Your task to perform on an android device: delete location history Image 0: 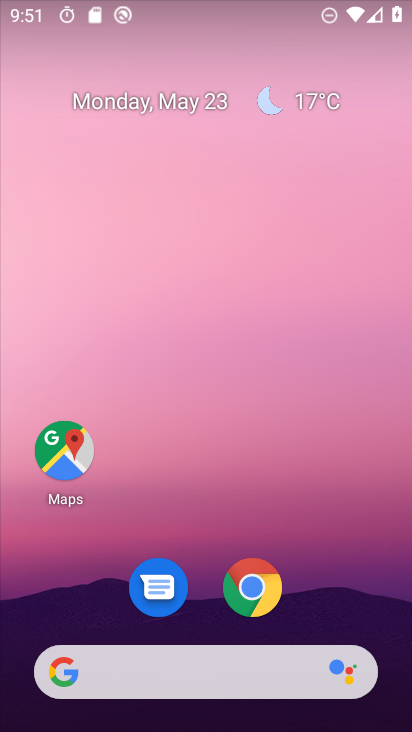
Step 0: click (70, 448)
Your task to perform on an android device: delete location history Image 1: 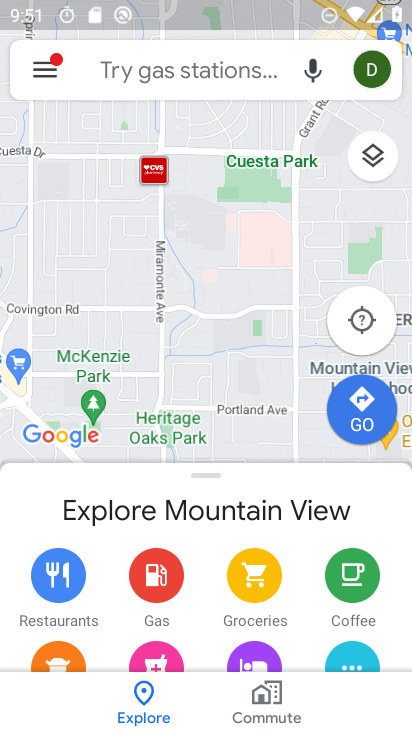
Step 1: click (64, 76)
Your task to perform on an android device: delete location history Image 2: 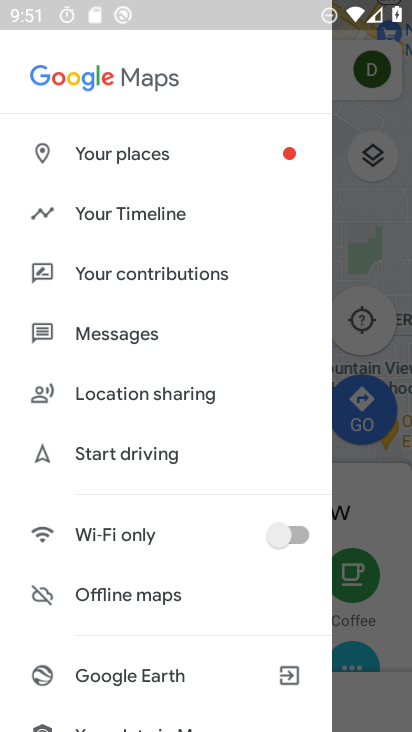
Step 2: click (147, 215)
Your task to perform on an android device: delete location history Image 3: 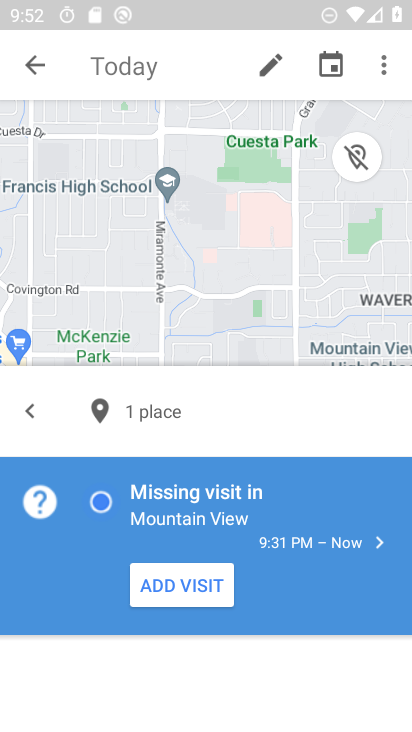
Step 3: click (379, 56)
Your task to perform on an android device: delete location history Image 4: 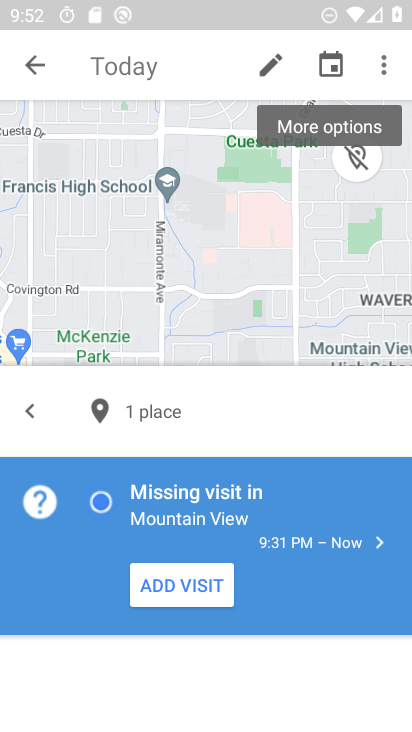
Step 4: click (379, 56)
Your task to perform on an android device: delete location history Image 5: 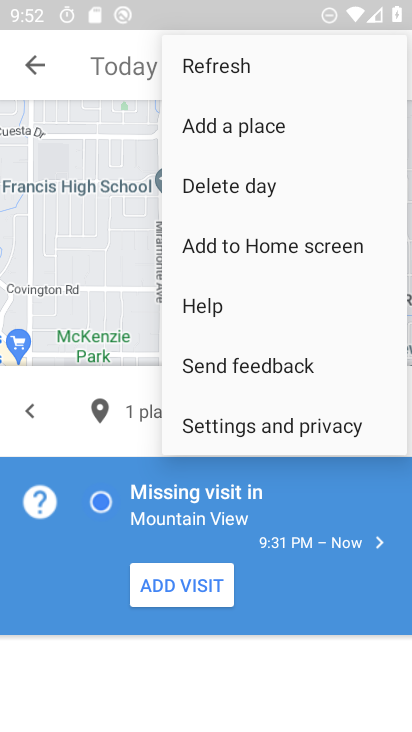
Step 5: click (282, 412)
Your task to perform on an android device: delete location history Image 6: 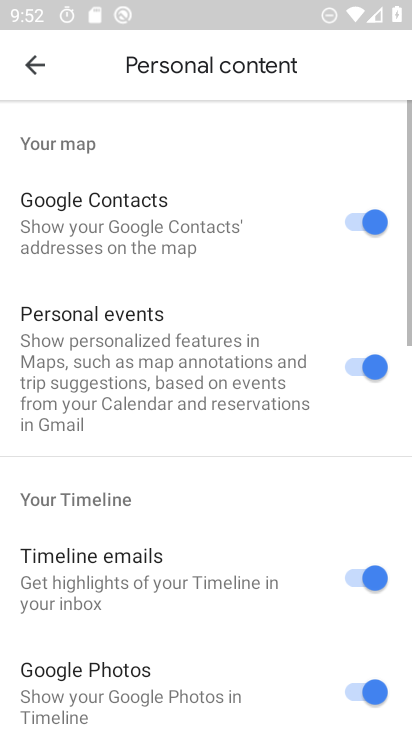
Step 6: drag from (111, 688) to (195, 129)
Your task to perform on an android device: delete location history Image 7: 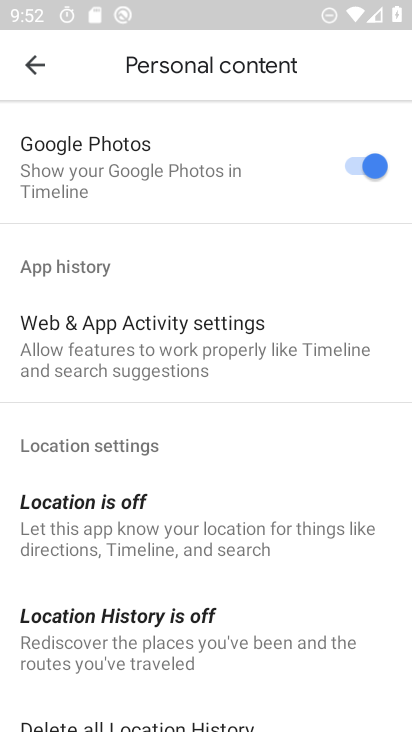
Step 7: drag from (136, 651) to (239, 302)
Your task to perform on an android device: delete location history Image 8: 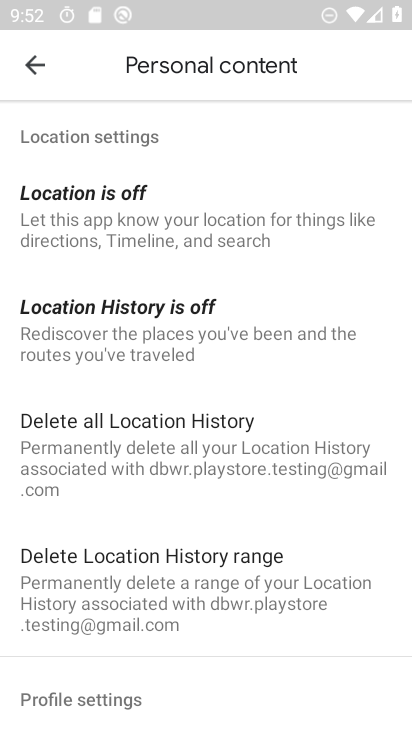
Step 8: click (146, 445)
Your task to perform on an android device: delete location history Image 9: 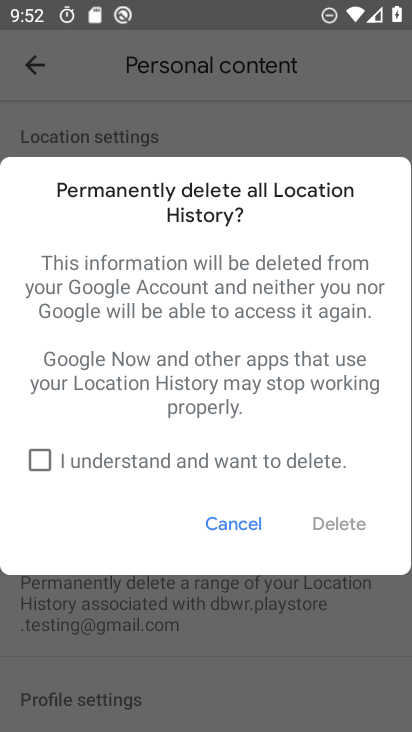
Step 9: click (15, 469)
Your task to perform on an android device: delete location history Image 10: 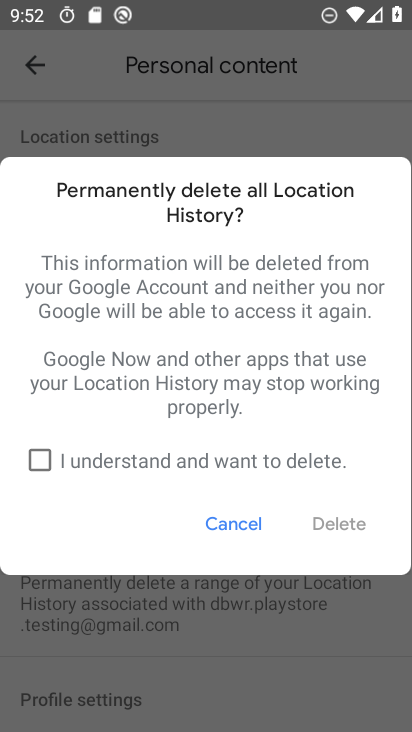
Step 10: click (41, 453)
Your task to perform on an android device: delete location history Image 11: 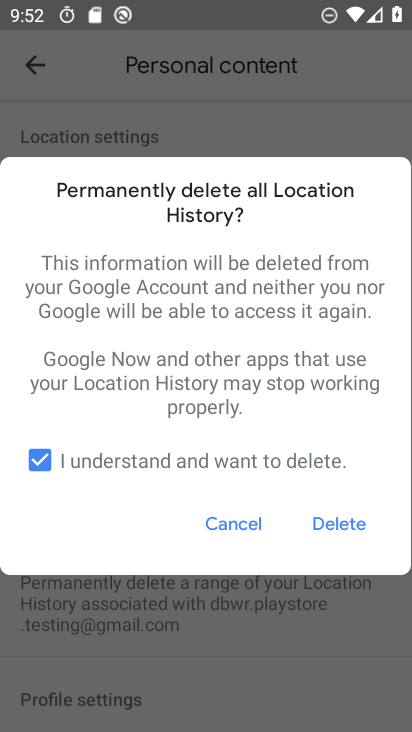
Step 11: click (324, 509)
Your task to perform on an android device: delete location history Image 12: 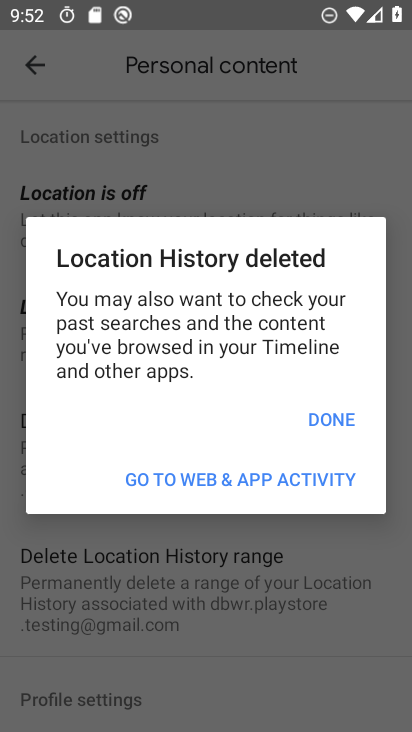
Step 12: click (329, 414)
Your task to perform on an android device: delete location history Image 13: 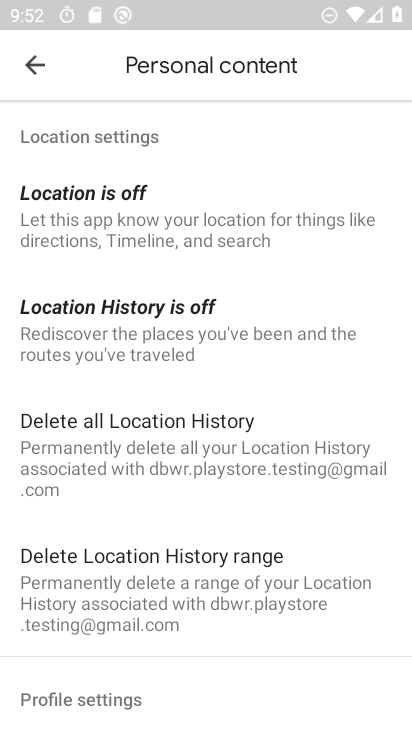
Step 13: task complete